Your task to perform on an android device: turn pop-ups off in chrome Image 0: 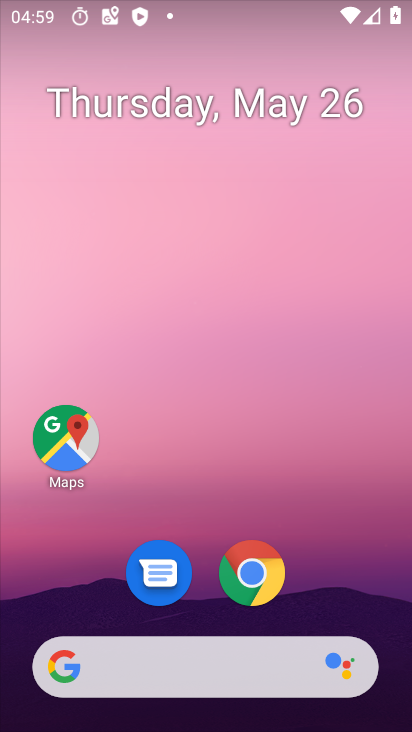
Step 0: click (252, 576)
Your task to perform on an android device: turn pop-ups off in chrome Image 1: 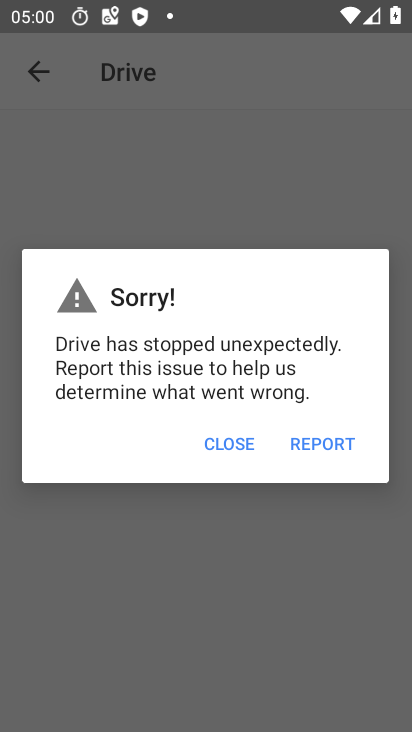
Step 1: press home button
Your task to perform on an android device: turn pop-ups off in chrome Image 2: 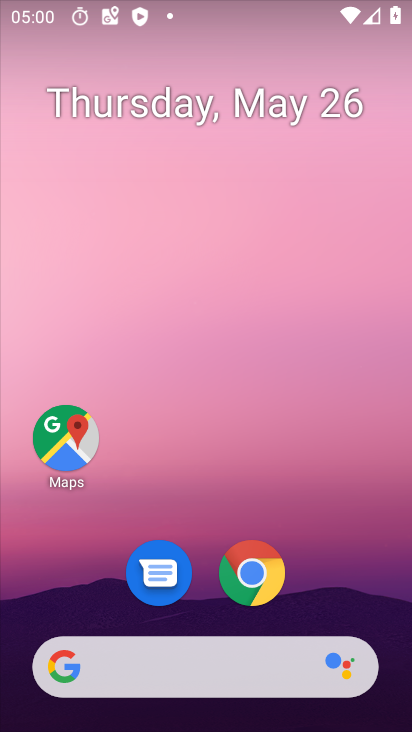
Step 2: click (262, 577)
Your task to perform on an android device: turn pop-ups off in chrome Image 3: 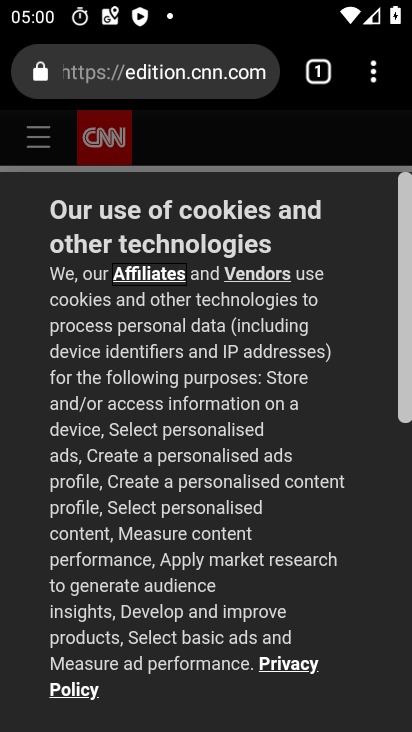
Step 3: click (362, 78)
Your task to perform on an android device: turn pop-ups off in chrome Image 4: 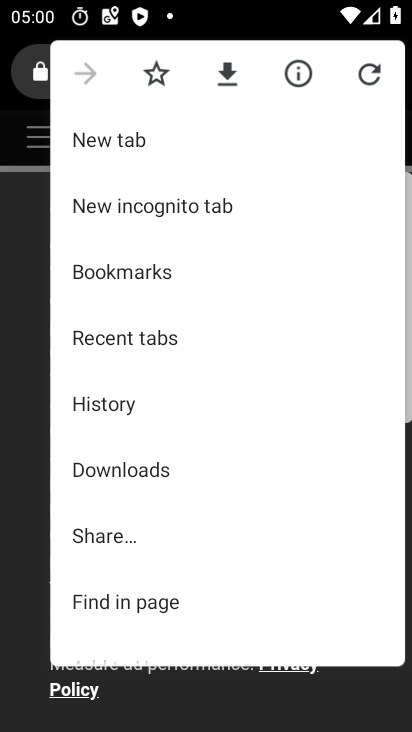
Step 4: drag from (142, 553) to (194, 279)
Your task to perform on an android device: turn pop-ups off in chrome Image 5: 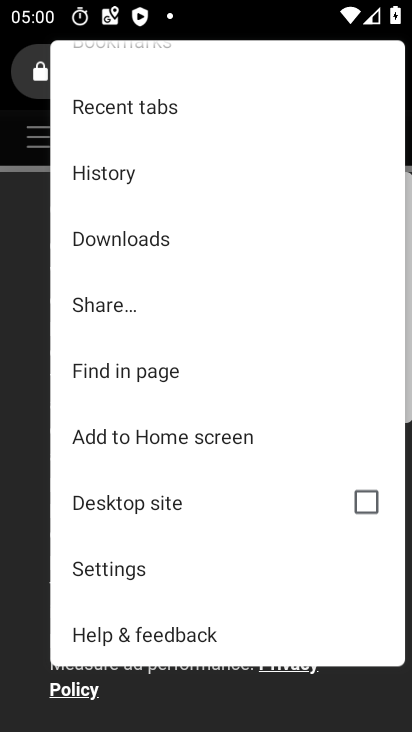
Step 5: click (108, 577)
Your task to perform on an android device: turn pop-ups off in chrome Image 6: 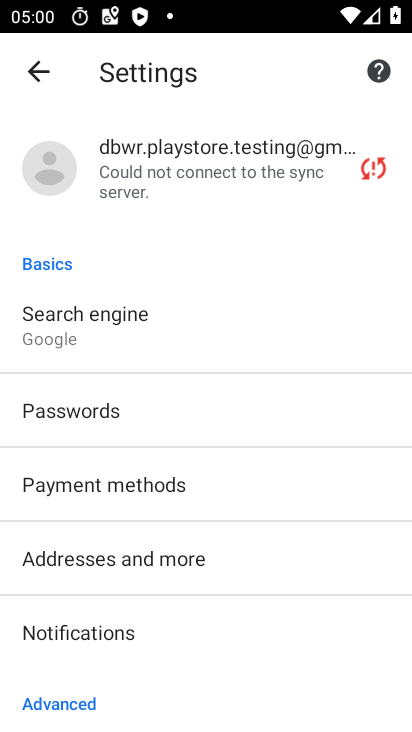
Step 6: drag from (134, 635) to (140, 427)
Your task to perform on an android device: turn pop-ups off in chrome Image 7: 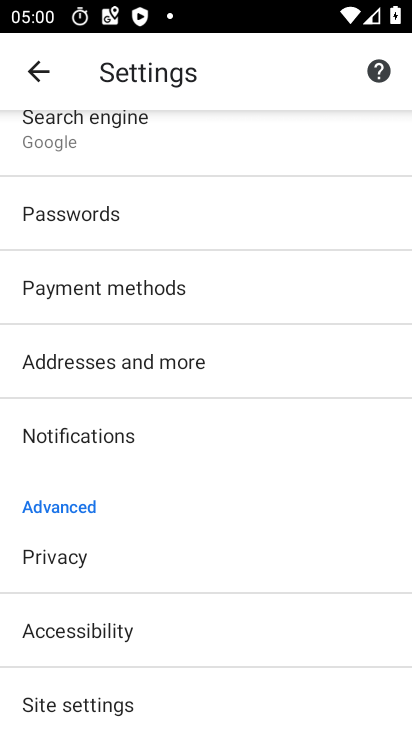
Step 7: click (85, 700)
Your task to perform on an android device: turn pop-ups off in chrome Image 8: 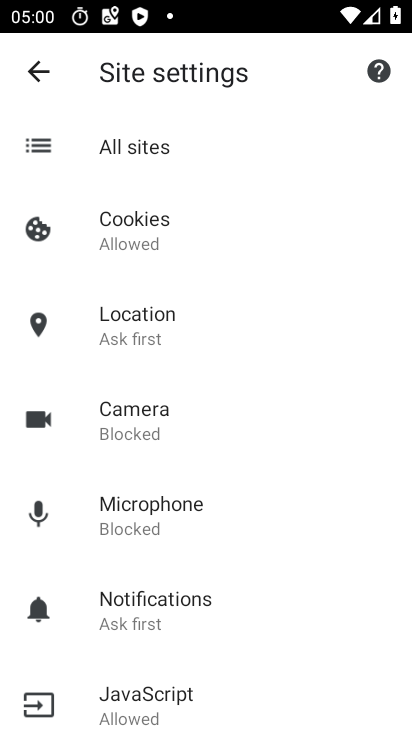
Step 8: drag from (166, 636) to (195, 299)
Your task to perform on an android device: turn pop-ups off in chrome Image 9: 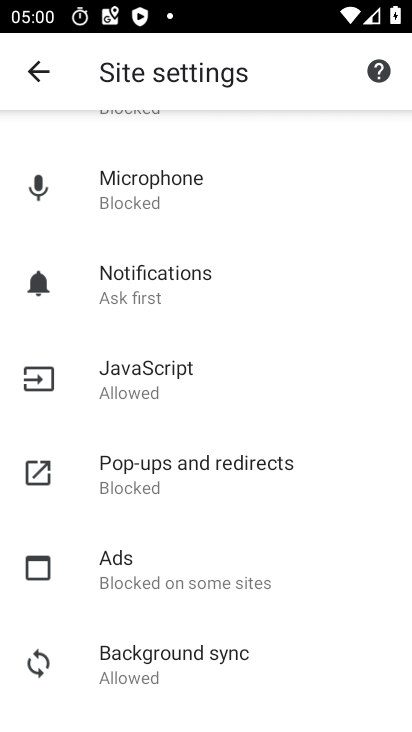
Step 9: click (181, 476)
Your task to perform on an android device: turn pop-ups off in chrome Image 10: 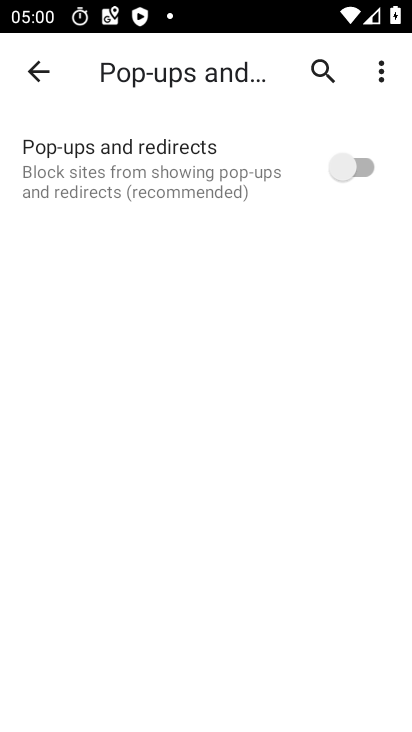
Step 10: task complete